Your task to perform on an android device: check android version Image 0: 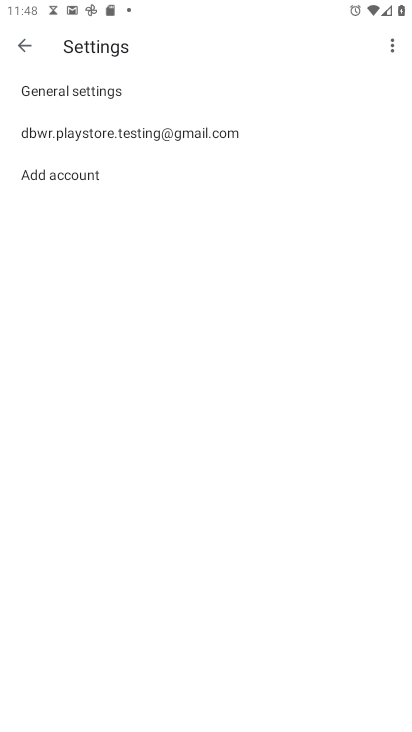
Step 0: press home button
Your task to perform on an android device: check android version Image 1: 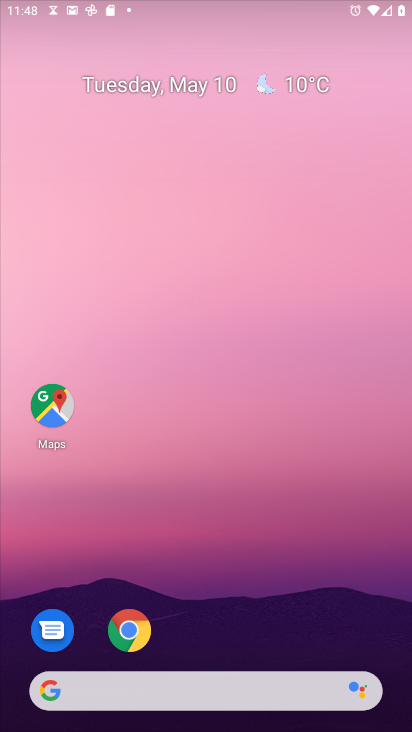
Step 1: drag from (327, 516) to (308, 100)
Your task to perform on an android device: check android version Image 2: 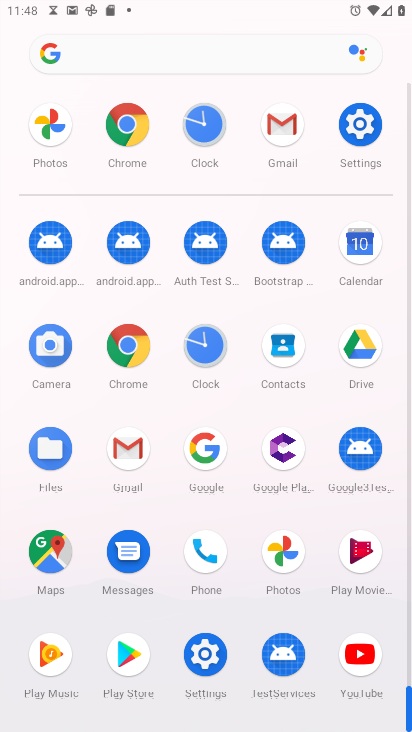
Step 2: click (361, 124)
Your task to perform on an android device: check android version Image 3: 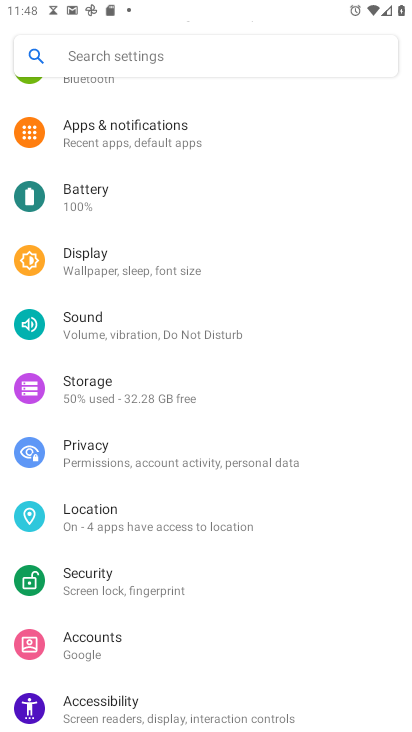
Step 3: drag from (224, 632) to (257, 234)
Your task to perform on an android device: check android version Image 4: 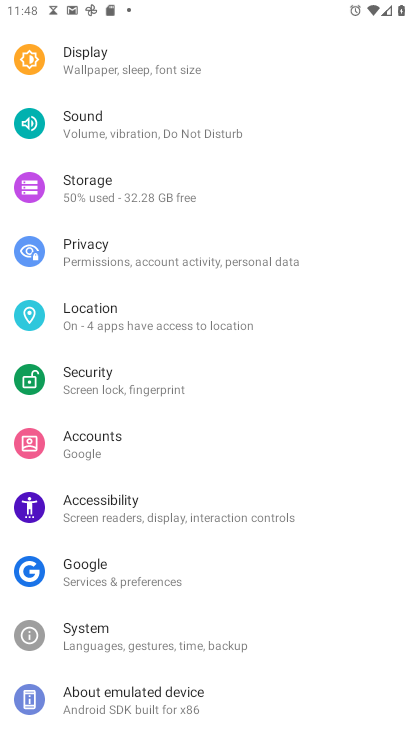
Step 4: click (177, 698)
Your task to perform on an android device: check android version Image 5: 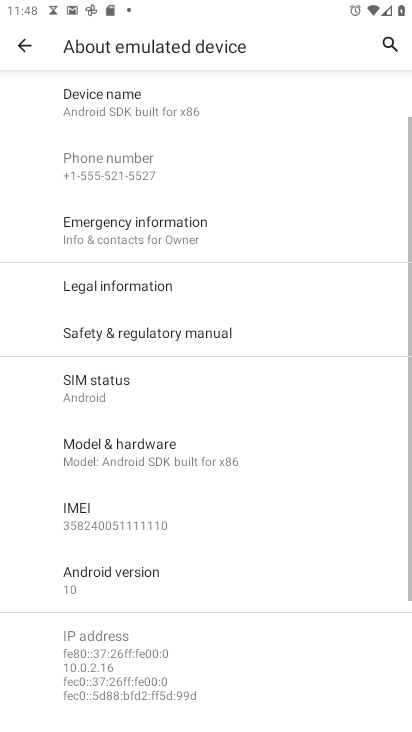
Step 5: click (143, 583)
Your task to perform on an android device: check android version Image 6: 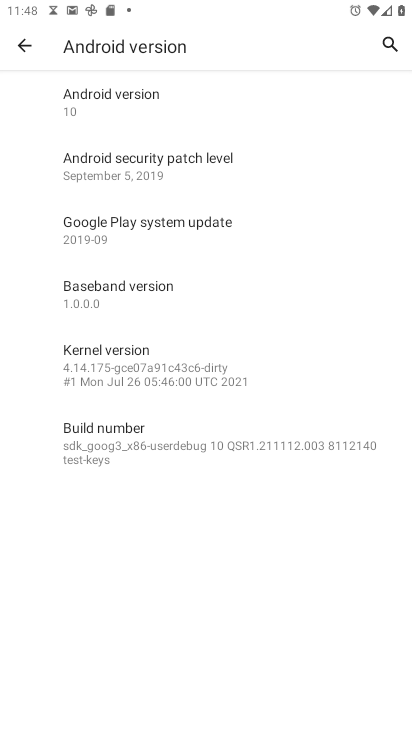
Step 6: task complete